Your task to perform on an android device: toggle sleep mode Image 0: 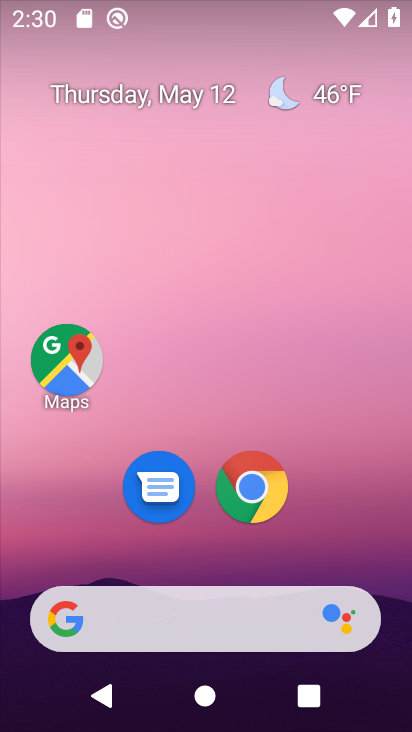
Step 0: drag from (298, 558) to (297, 57)
Your task to perform on an android device: toggle sleep mode Image 1: 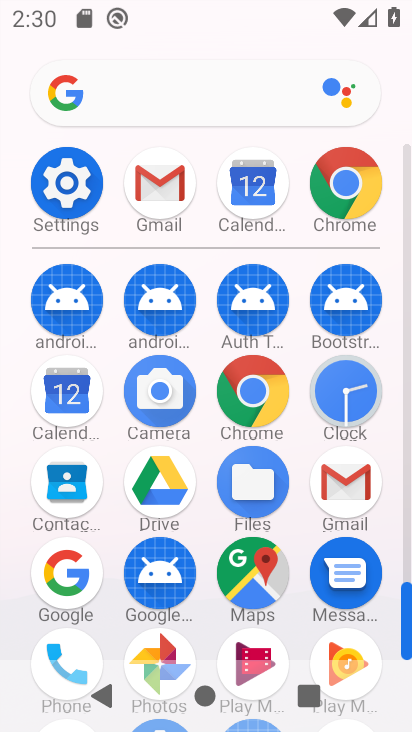
Step 1: click (77, 190)
Your task to perform on an android device: toggle sleep mode Image 2: 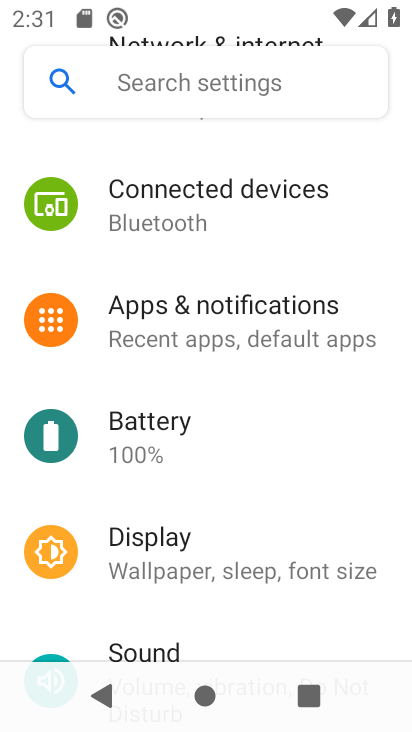
Step 2: click (194, 544)
Your task to perform on an android device: toggle sleep mode Image 3: 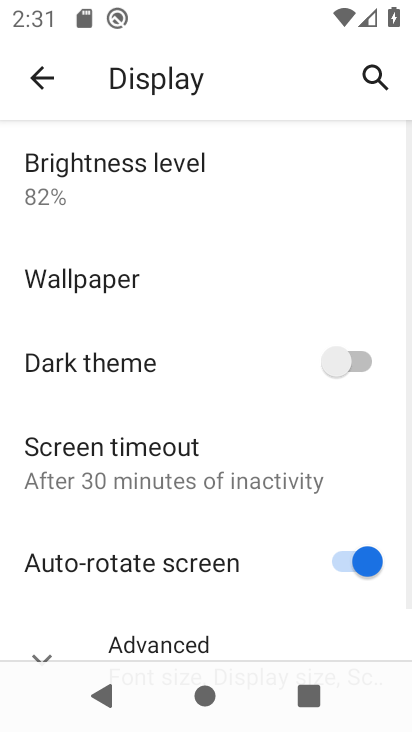
Step 3: drag from (160, 595) to (191, 177)
Your task to perform on an android device: toggle sleep mode Image 4: 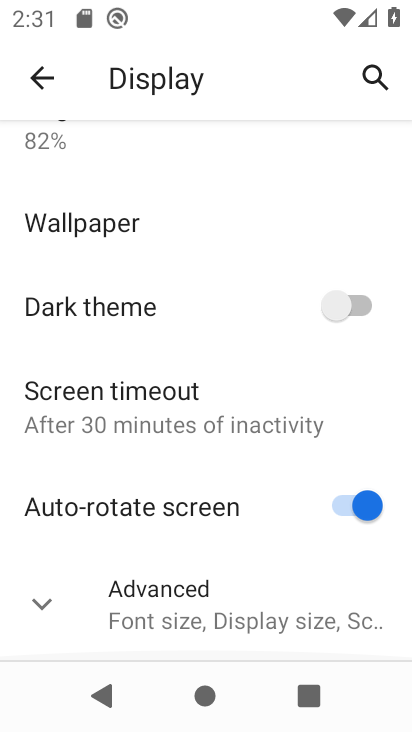
Step 4: click (164, 625)
Your task to perform on an android device: toggle sleep mode Image 5: 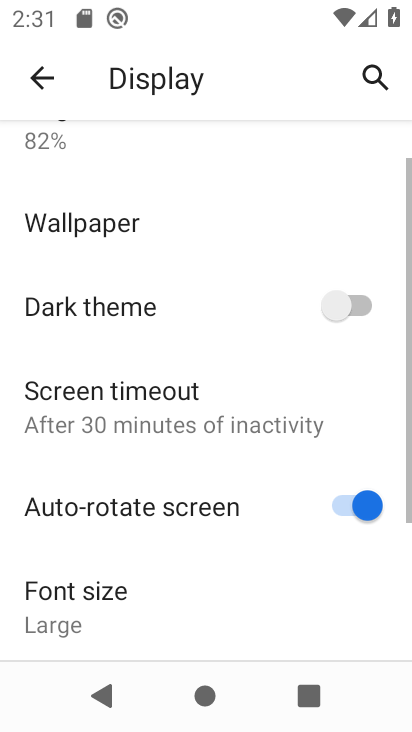
Step 5: drag from (159, 620) to (168, 315)
Your task to perform on an android device: toggle sleep mode Image 6: 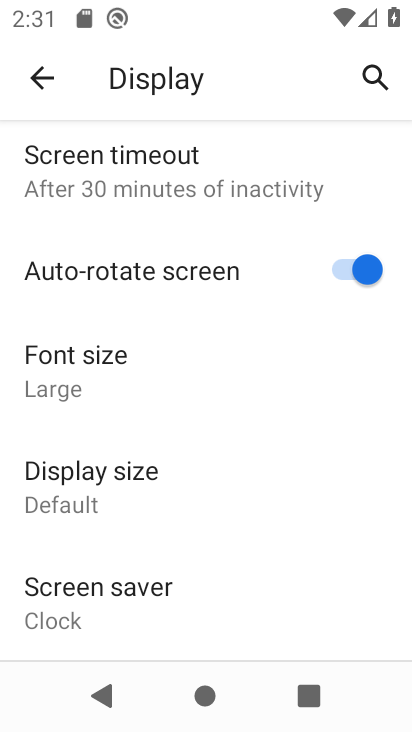
Step 6: drag from (271, 540) to (244, 147)
Your task to perform on an android device: toggle sleep mode Image 7: 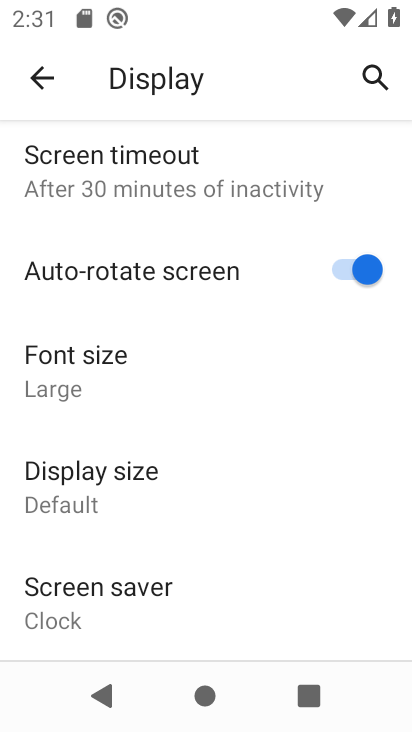
Step 7: click (41, 98)
Your task to perform on an android device: toggle sleep mode Image 8: 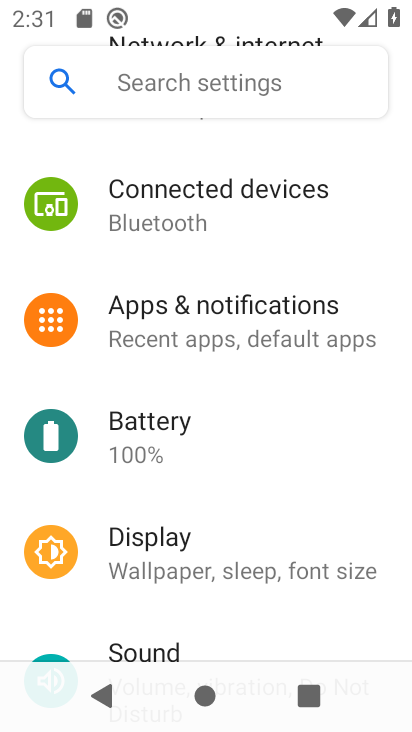
Step 8: task complete